Your task to perform on an android device: turn notification dots off Image 0: 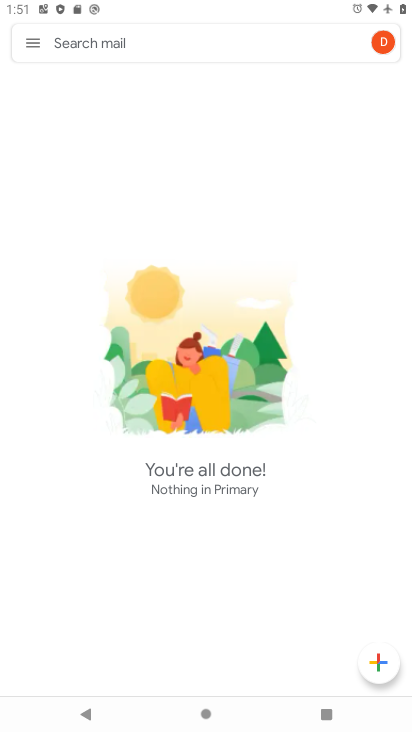
Step 0: press home button
Your task to perform on an android device: turn notification dots off Image 1: 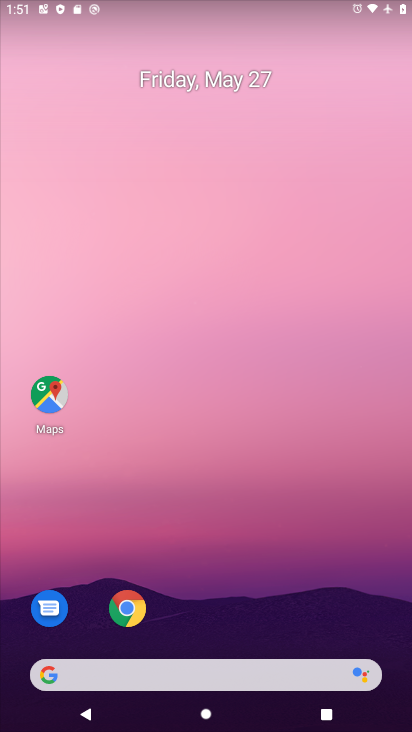
Step 1: drag from (189, 669) to (299, 79)
Your task to perform on an android device: turn notification dots off Image 2: 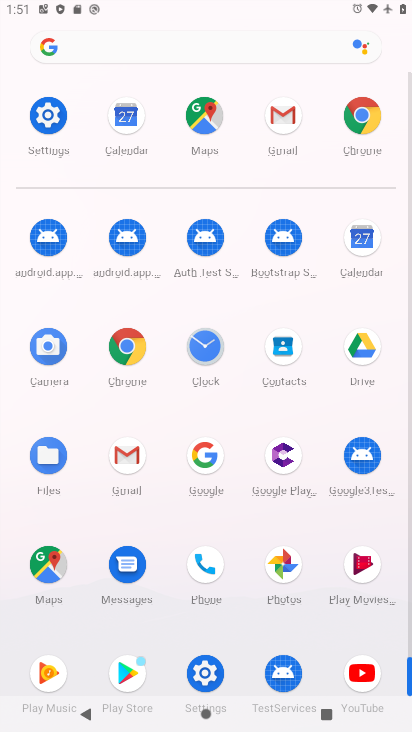
Step 2: click (53, 118)
Your task to perform on an android device: turn notification dots off Image 3: 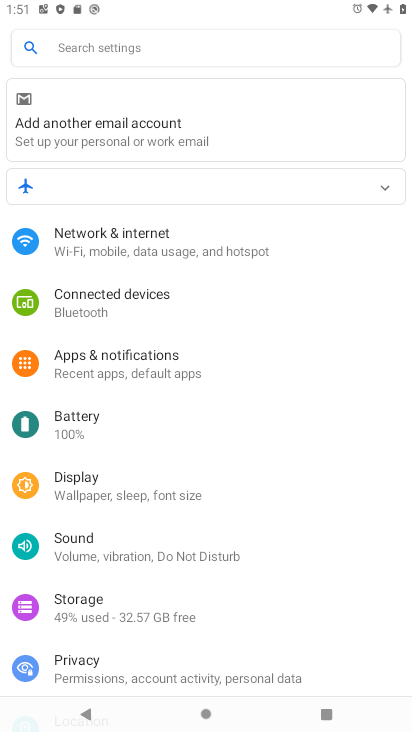
Step 3: click (161, 362)
Your task to perform on an android device: turn notification dots off Image 4: 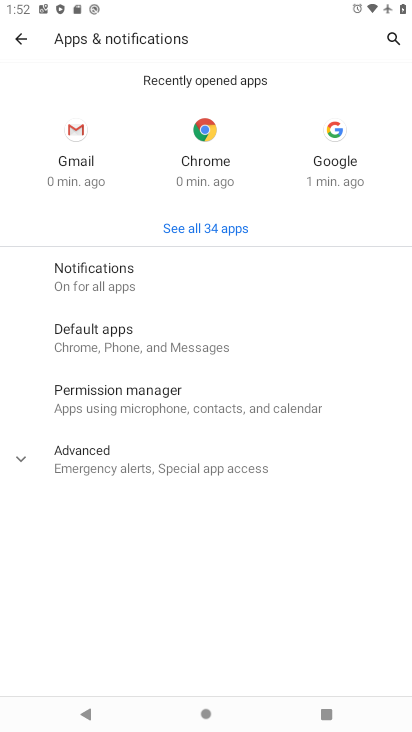
Step 4: click (112, 286)
Your task to perform on an android device: turn notification dots off Image 5: 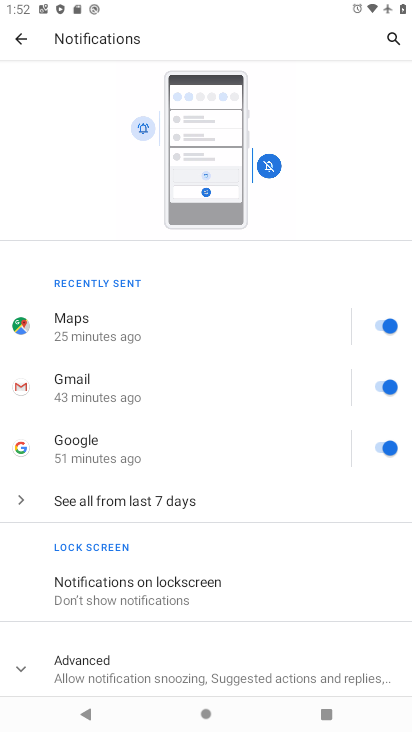
Step 5: click (139, 670)
Your task to perform on an android device: turn notification dots off Image 6: 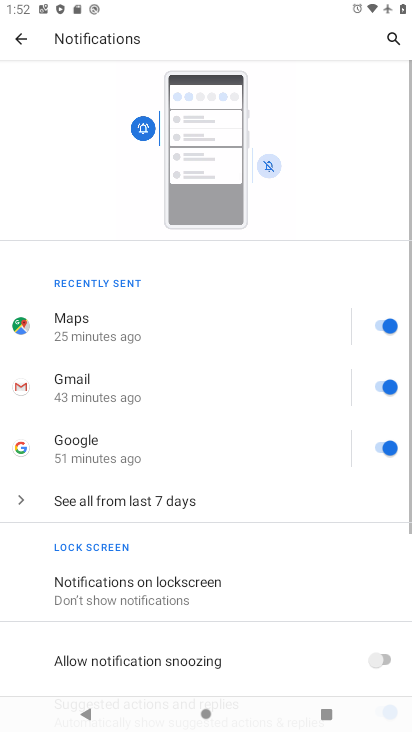
Step 6: drag from (204, 608) to (326, 210)
Your task to perform on an android device: turn notification dots off Image 7: 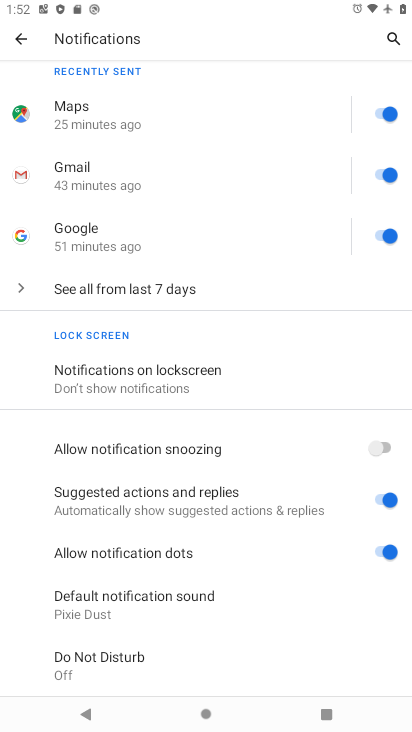
Step 7: click (379, 556)
Your task to perform on an android device: turn notification dots off Image 8: 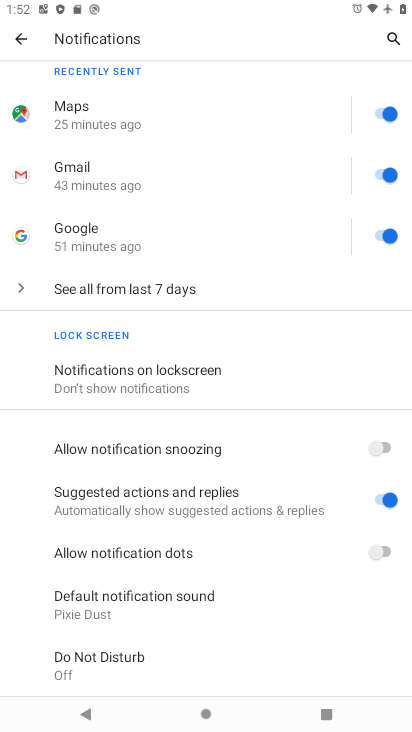
Step 8: task complete